Your task to perform on an android device: turn pop-ups off in chrome Image 0: 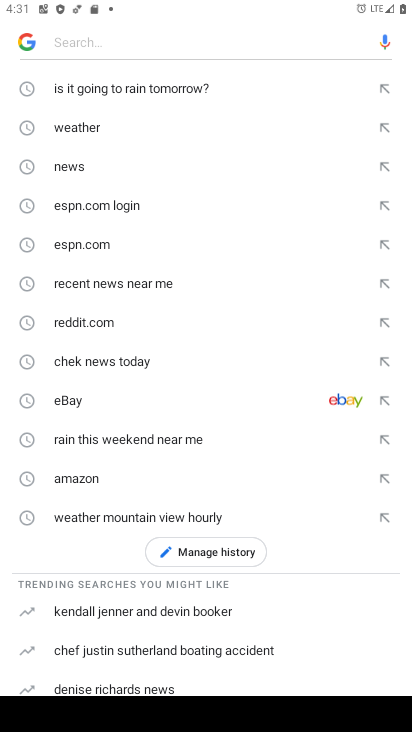
Step 0: press home button
Your task to perform on an android device: turn pop-ups off in chrome Image 1: 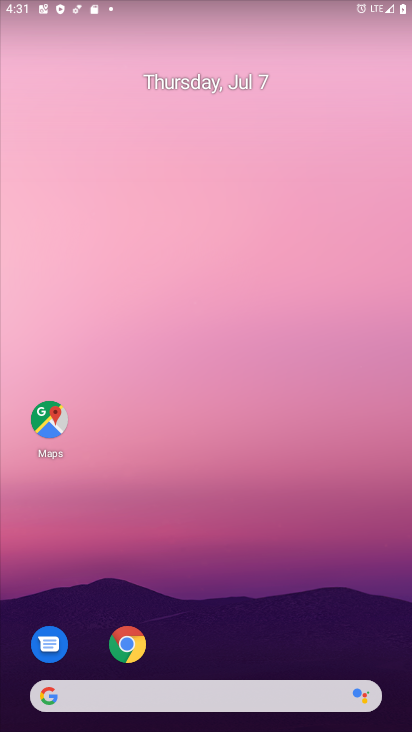
Step 1: click (130, 644)
Your task to perform on an android device: turn pop-ups off in chrome Image 2: 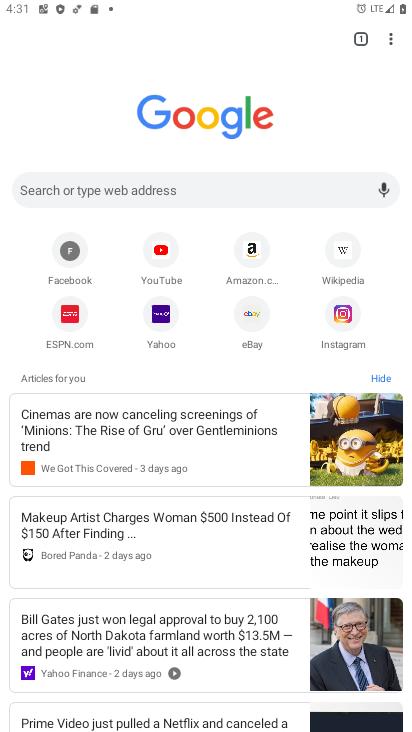
Step 2: click (389, 37)
Your task to perform on an android device: turn pop-ups off in chrome Image 3: 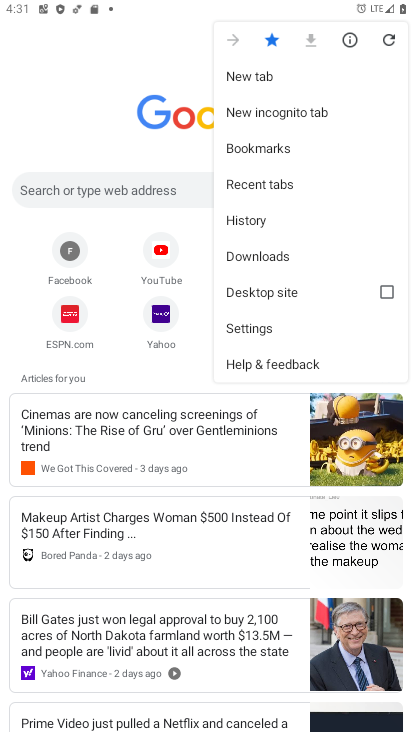
Step 3: click (256, 328)
Your task to perform on an android device: turn pop-ups off in chrome Image 4: 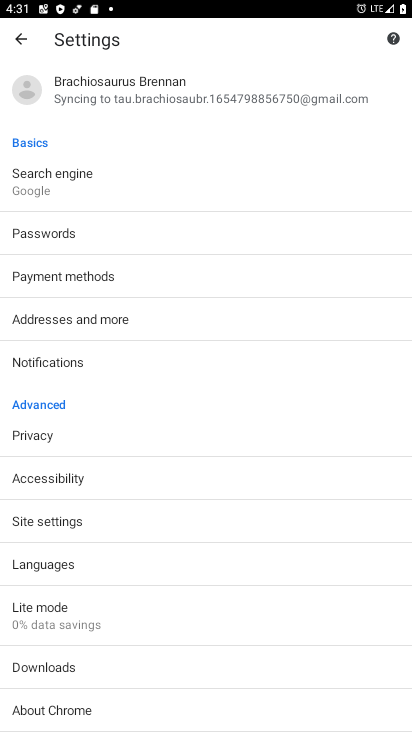
Step 4: click (51, 522)
Your task to perform on an android device: turn pop-ups off in chrome Image 5: 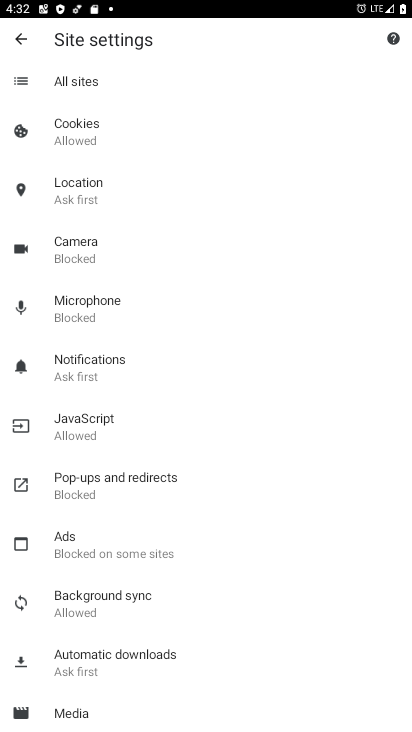
Step 5: click (86, 485)
Your task to perform on an android device: turn pop-ups off in chrome Image 6: 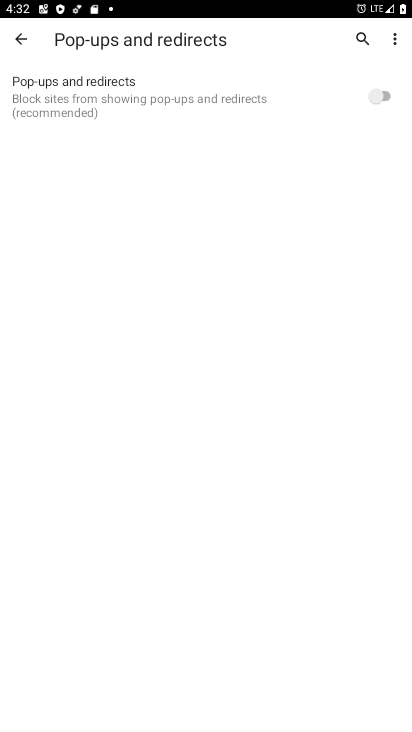
Step 6: task complete